Your task to perform on an android device: move an email to a new category in the gmail app Image 0: 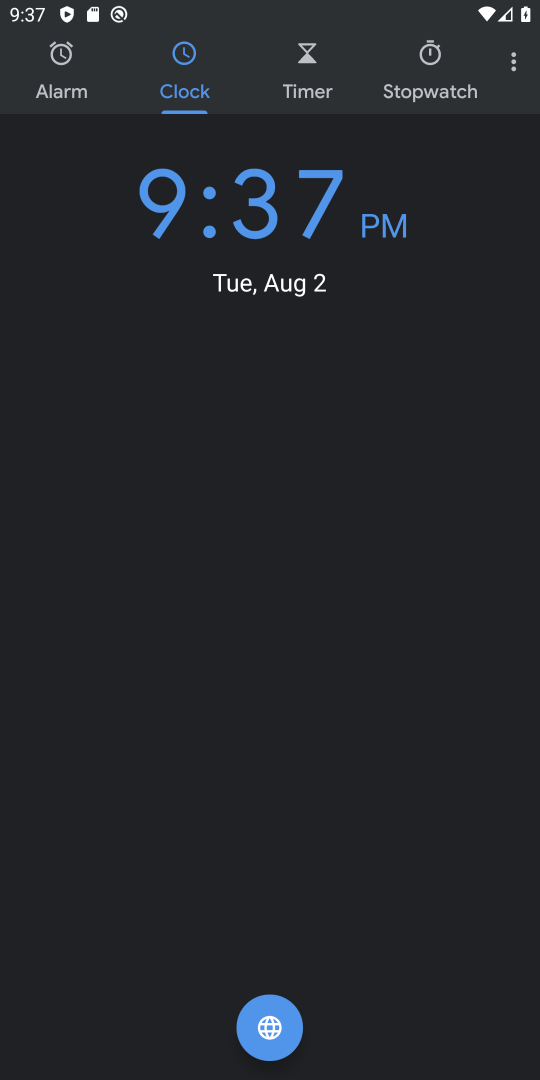
Step 0: press home button
Your task to perform on an android device: move an email to a new category in the gmail app Image 1: 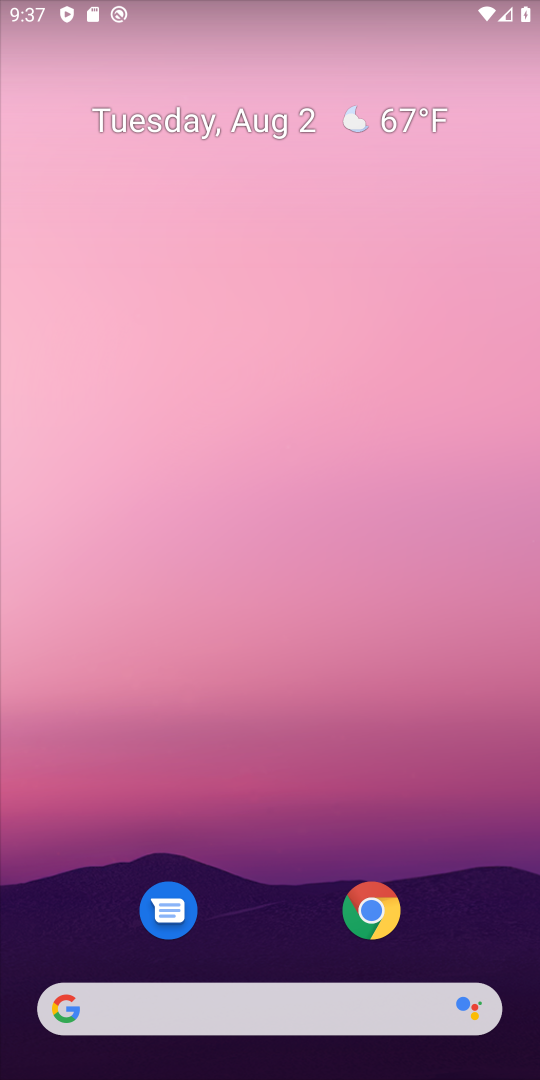
Step 1: drag from (276, 835) to (386, 275)
Your task to perform on an android device: move an email to a new category in the gmail app Image 2: 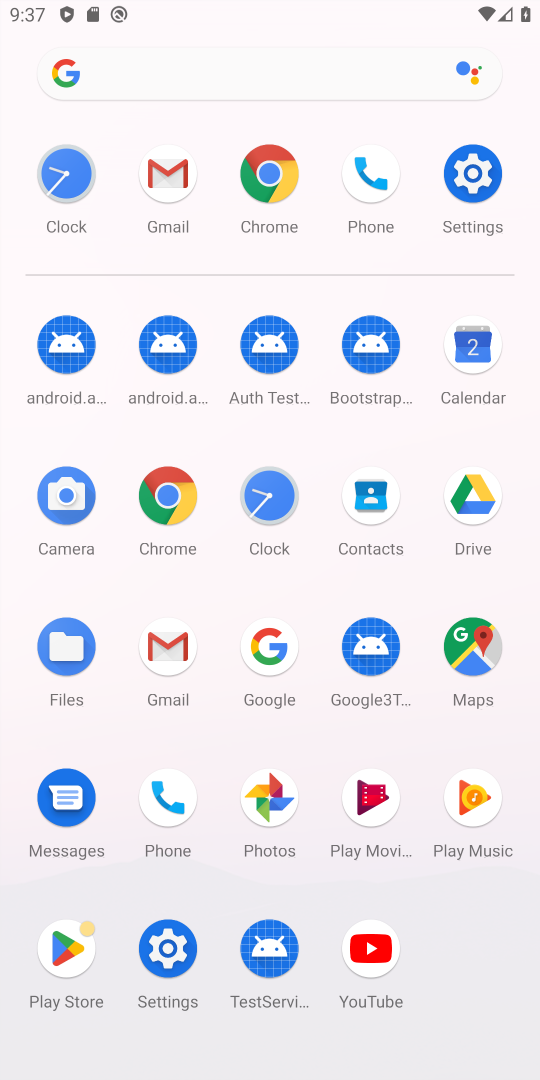
Step 2: click (170, 636)
Your task to perform on an android device: move an email to a new category in the gmail app Image 3: 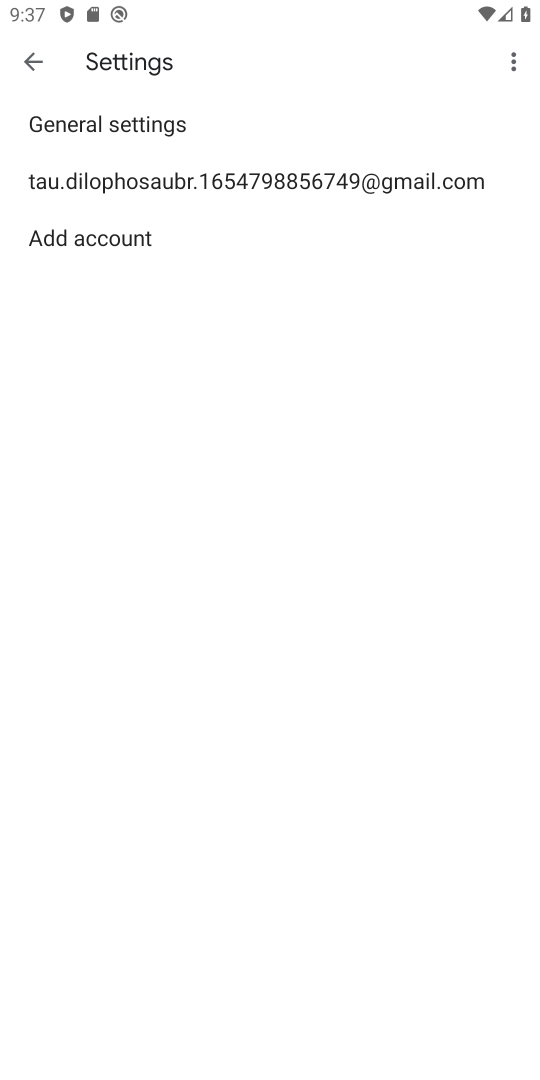
Step 3: click (12, 45)
Your task to perform on an android device: move an email to a new category in the gmail app Image 4: 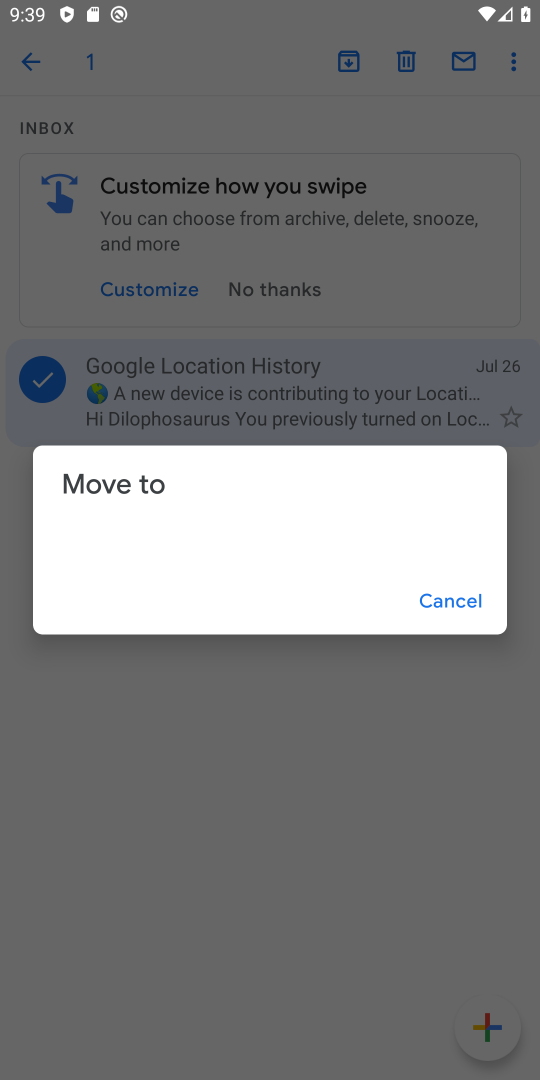
Step 4: task complete